Your task to perform on an android device: Open Chrome and go to settings Image 0: 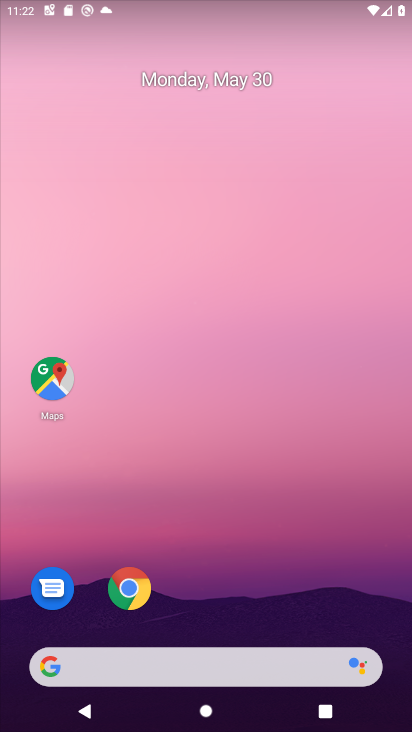
Step 0: drag from (293, 686) to (410, 30)
Your task to perform on an android device: Open Chrome and go to settings Image 1: 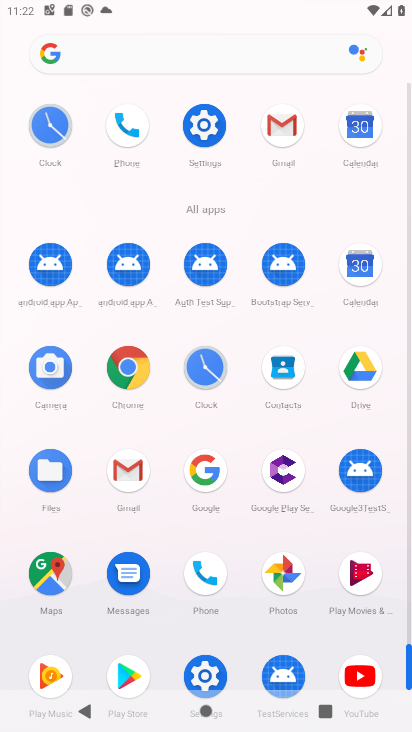
Step 1: click (119, 378)
Your task to perform on an android device: Open Chrome and go to settings Image 2: 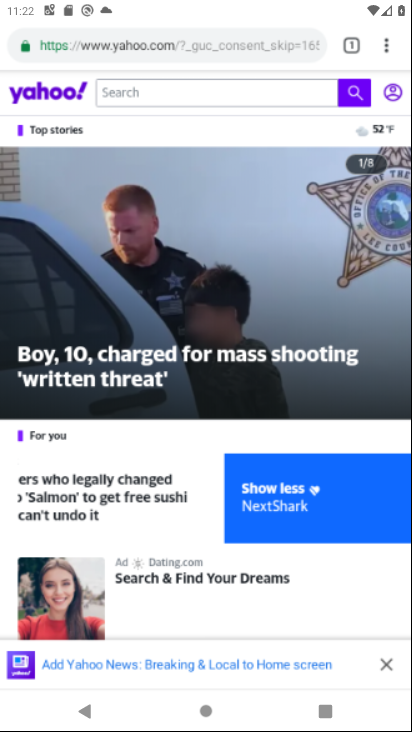
Step 2: click (377, 49)
Your task to perform on an android device: Open Chrome and go to settings Image 3: 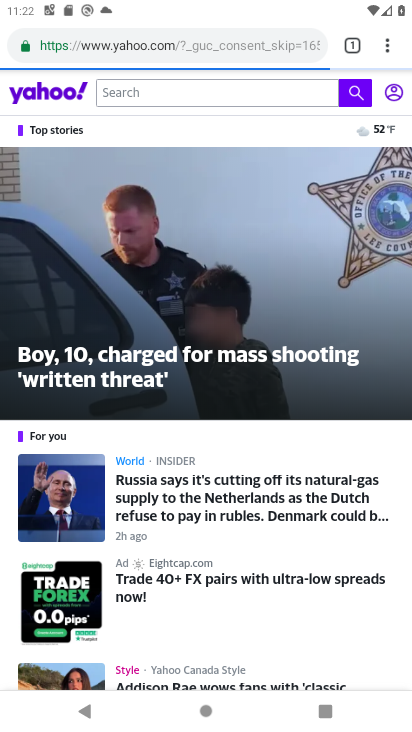
Step 3: click (382, 41)
Your task to perform on an android device: Open Chrome and go to settings Image 4: 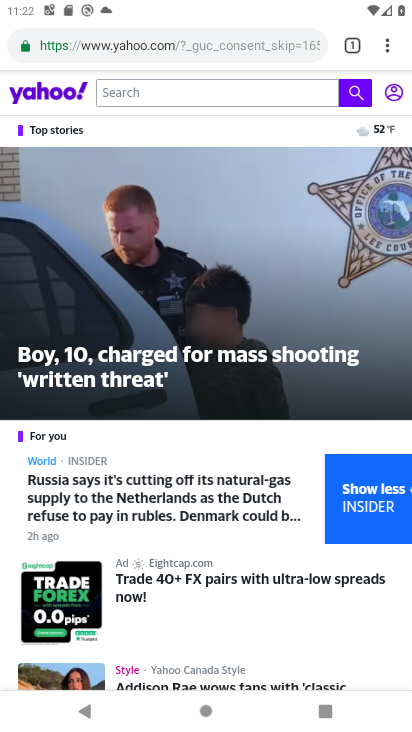
Step 4: task complete